Your task to perform on an android device: toggle improve location accuracy Image 0: 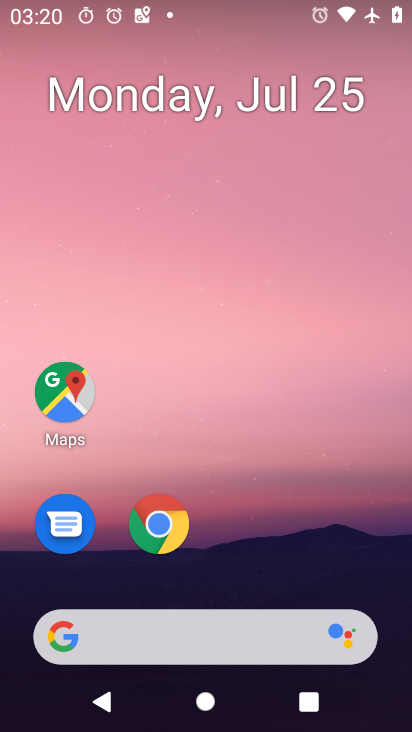
Step 0: press home button
Your task to perform on an android device: toggle improve location accuracy Image 1: 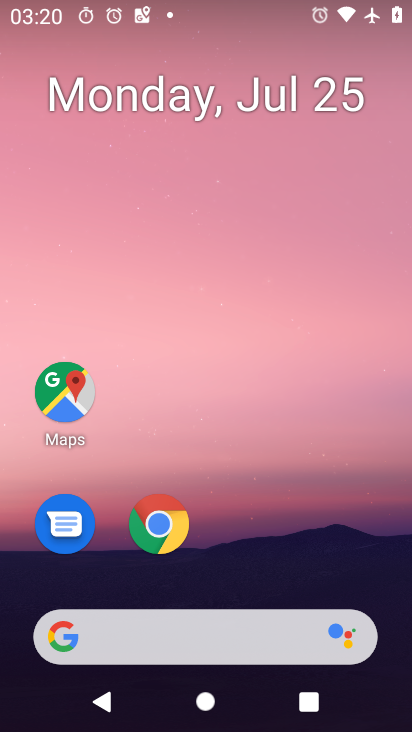
Step 1: drag from (249, 573) to (233, 100)
Your task to perform on an android device: toggle improve location accuracy Image 2: 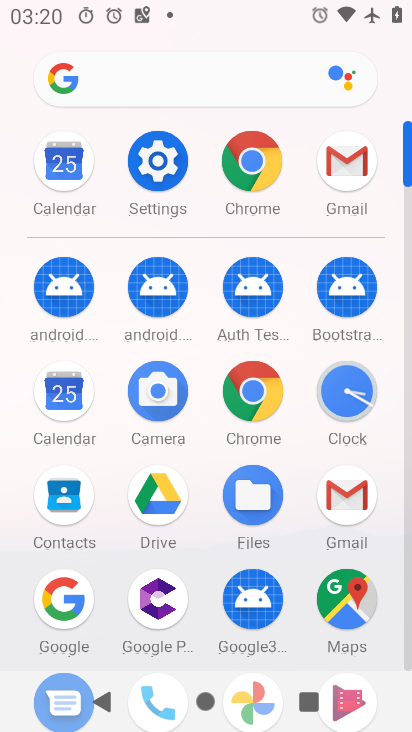
Step 2: click (167, 158)
Your task to perform on an android device: toggle improve location accuracy Image 3: 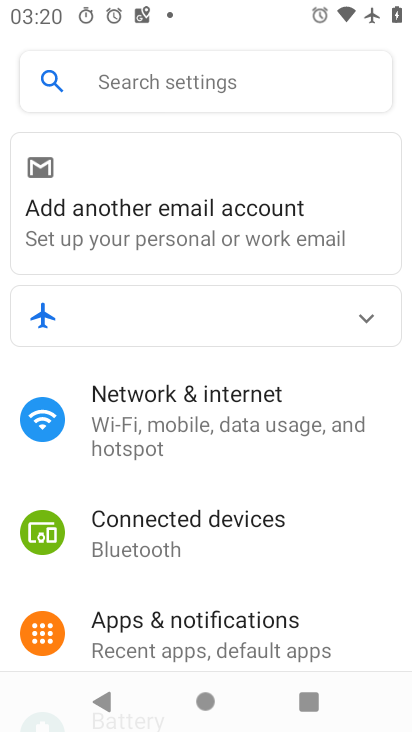
Step 3: drag from (260, 593) to (272, 114)
Your task to perform on an android device: toggle improve location accuracy Image 4: 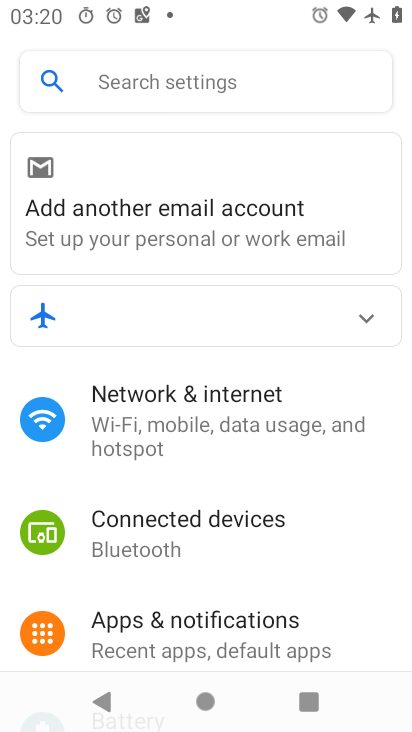
Step 4: drag from (258, 566) to (290, 22)
Your task to perform on an android device: toggle improve location accuracy Image 5: 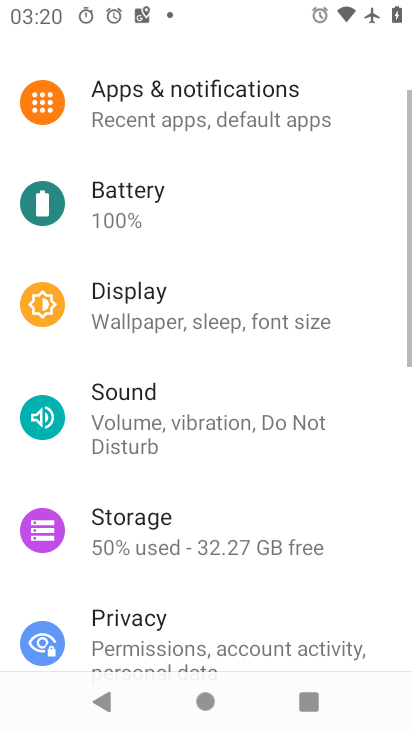
Step 5: drag from (222, 611) to (245, 211)
Your task to perform on an android device: toggle improve location accuracy Image 6: 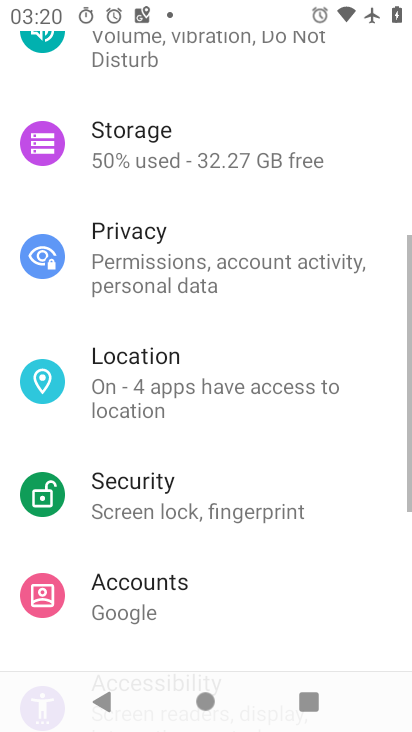
Step 6: drag from (335, 566) to (355, 140)
Your task to perform on an android device: toggle improve location accuracy Image 7: 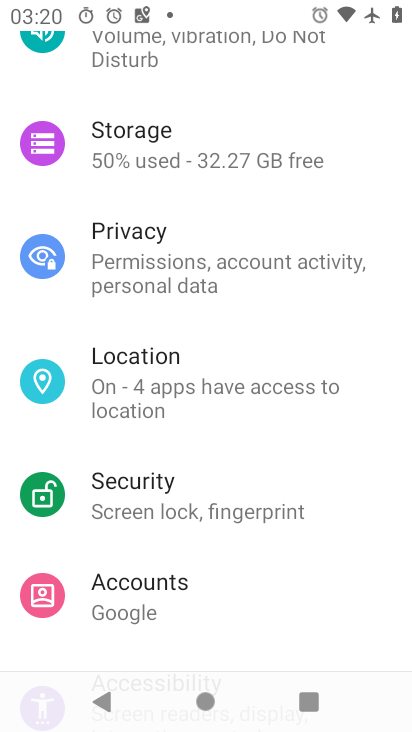
Step 7: click (128, 378)
Your task to perform on an android device: toggle improve location accuracy Image 8: 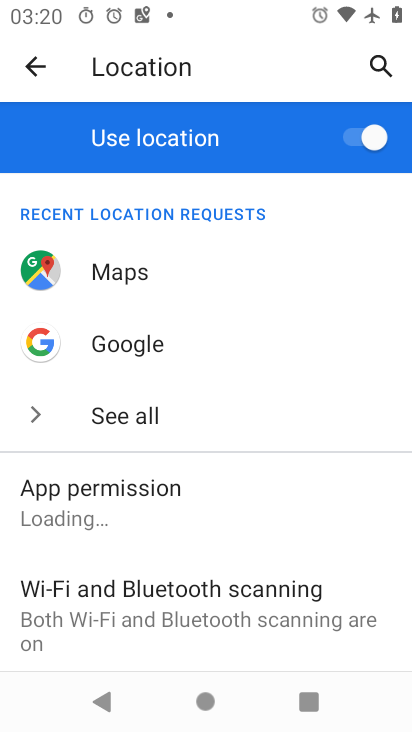
Step 8: drag from (257, 520) to (305, 25)
Your task to perform on an android device: toggle improve location accuracy Image 9: 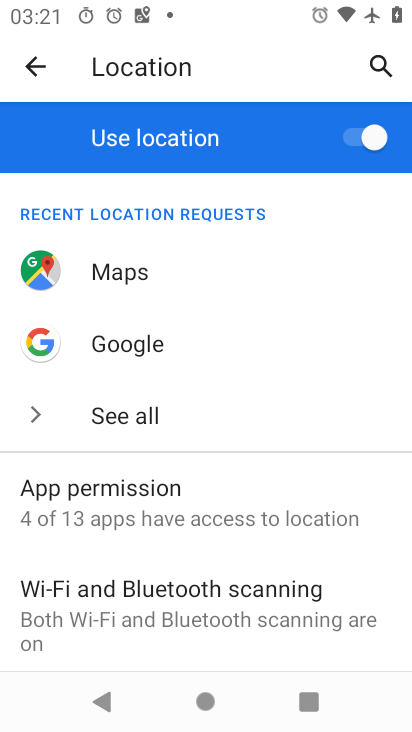
Step 9: drag from (372, 642) to (303, 5)
Your task to perform on an android device: toggle improve location accuracy Image 10: 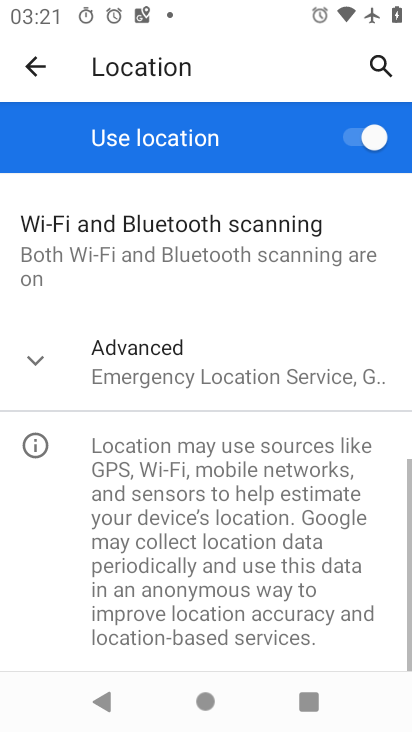
Step 10: drag from (318, 625) to (336, 49)
Your task to perform on an android device: toggle improve location accuracy Image 11: 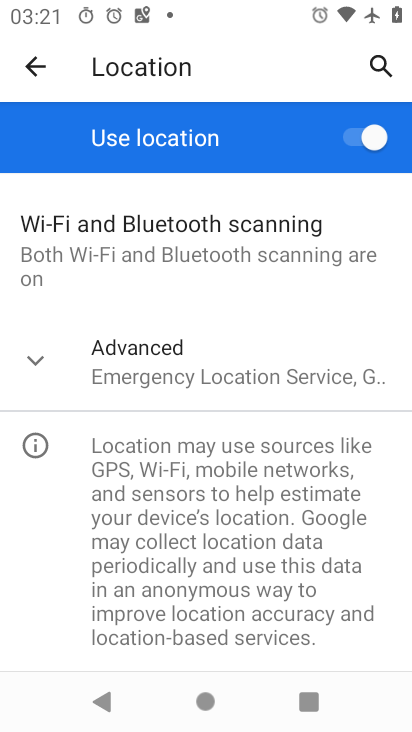
Step 11: click (157, 359)
Your task to perform on an android device: toggle improve location accuracy Image 12: 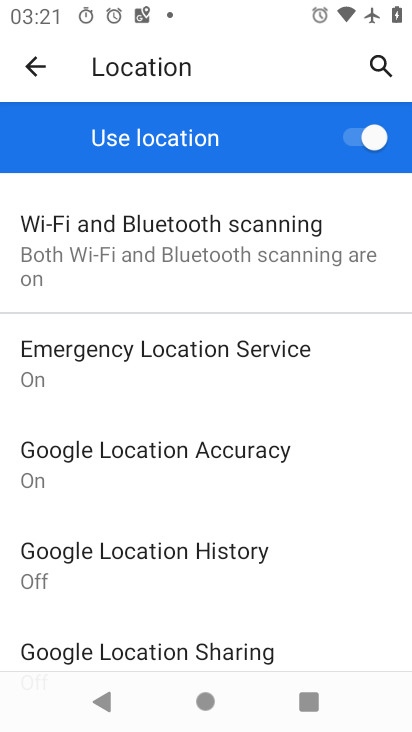
Step 12: click (220, 448)
Your task to perform on an android device: toggle improve location accuracy Image 13: 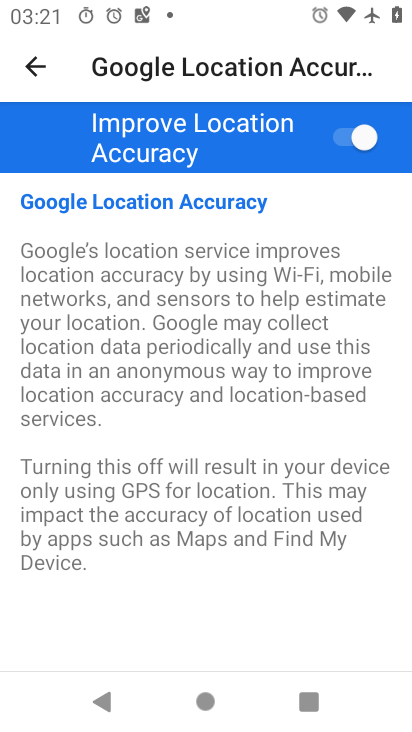
Step 13: click (369, 139)
Your task to perform on an android device: toggle improve location accuracy Image 14: 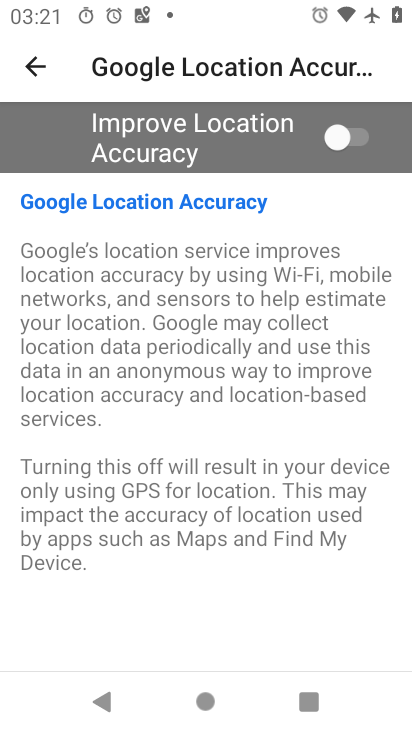
Step 14: task complete